Your task to perform on an android device: turn off translation in the chrome app Image 0: 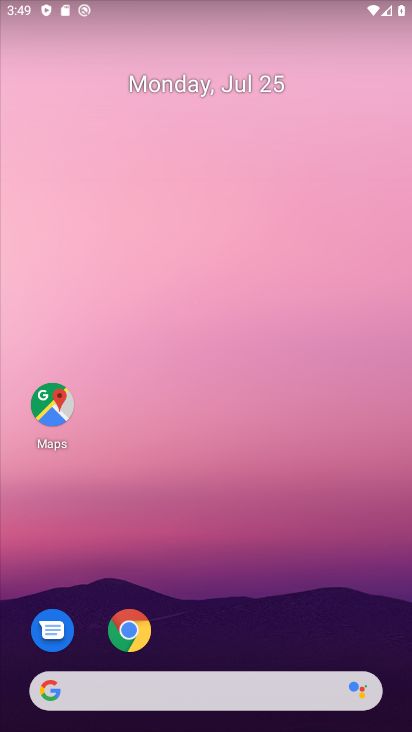
Step 0: drag from (212, 640) to (286, 132)
Your task to perform on an android device: turn off translation in the chrome app Image 1: 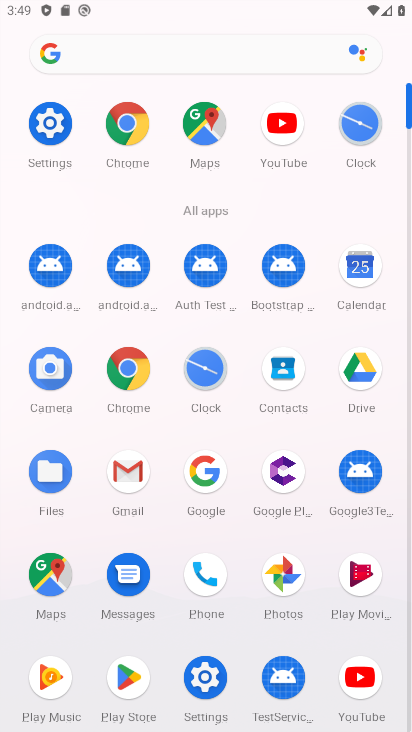
Step 1: click (122, 126)
Your task to perform on an android device: turn off translation in the chrome app Image 2: 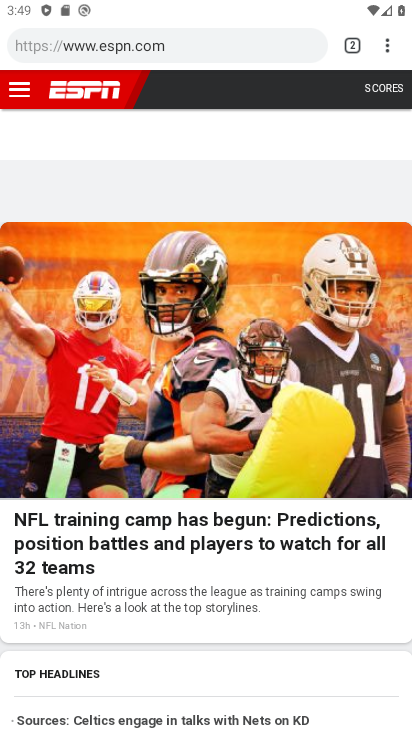
Step 2: click (394, 49)
Your task to perform on an android device: turn off translation in the chrome app Image 3: 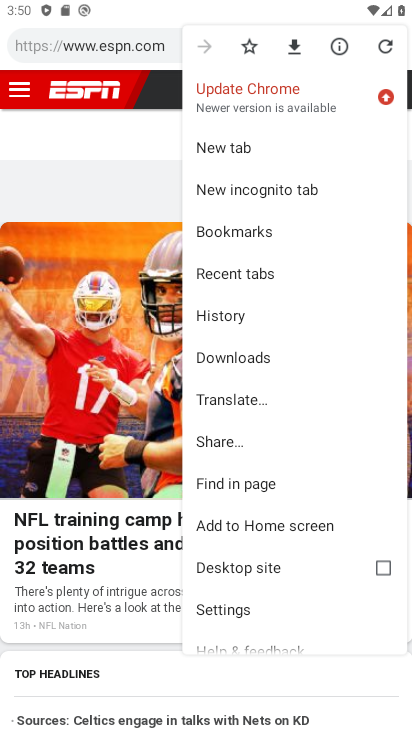
Step 3: click (274, 618)
Your task to perform on an android device: turn off translation in the chrome app Image 4: 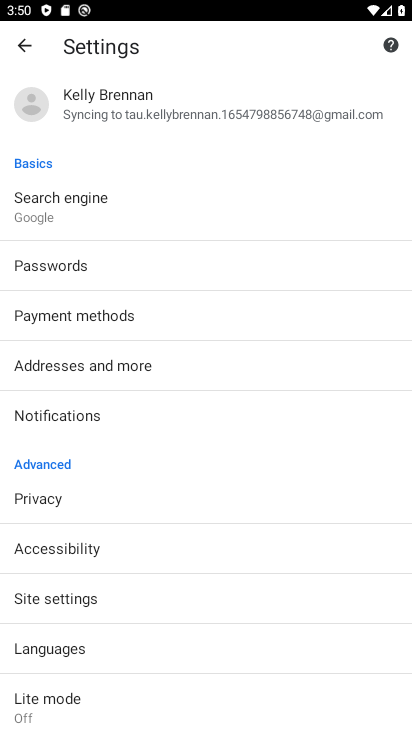
Step 4: click (197, 645)
Your task to perform on an android device: turn off translation in the chrome app Image 5: 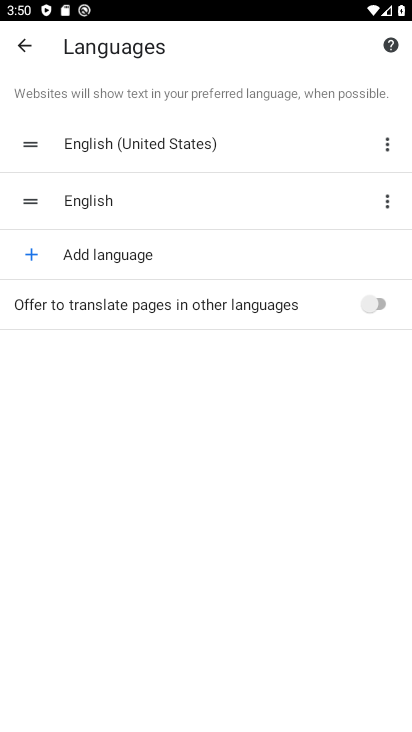
Step 5: task complete